Your task to perform on an android device: Do I have any events this weekend? Image 0: 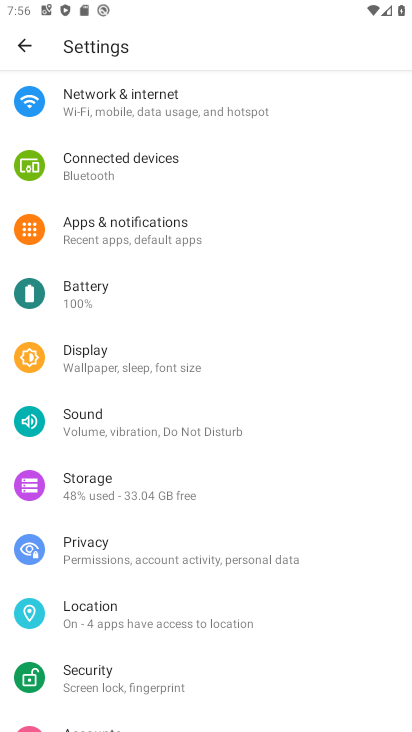
Step 0: press home button
Your task to perform on an android device: Do I have any events this weekend? Image 1: 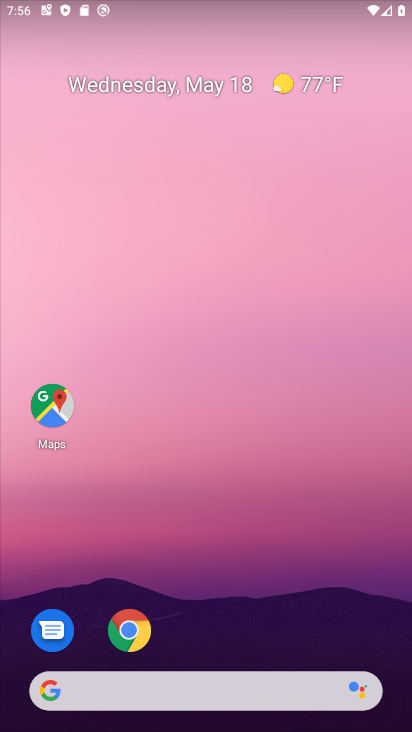
Step 1: drag from (223, 567) to (238, 144)
Your task to perform on an android device: Do I have any events this weekend? Image 2: 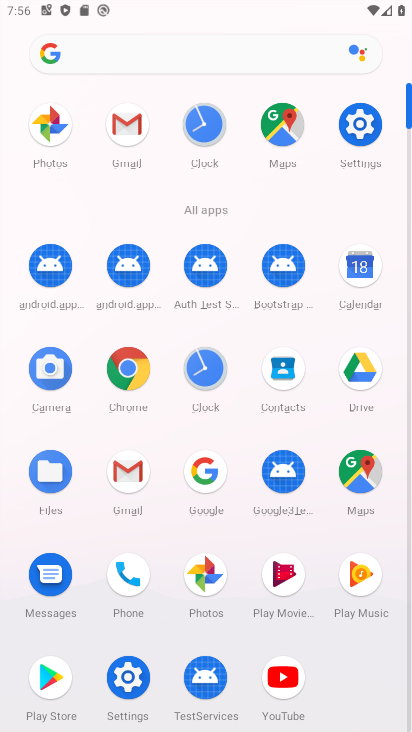
Step 2: click (362, 272)
Your task to perform on an android device: Do I have any events this weekend? Image 3: 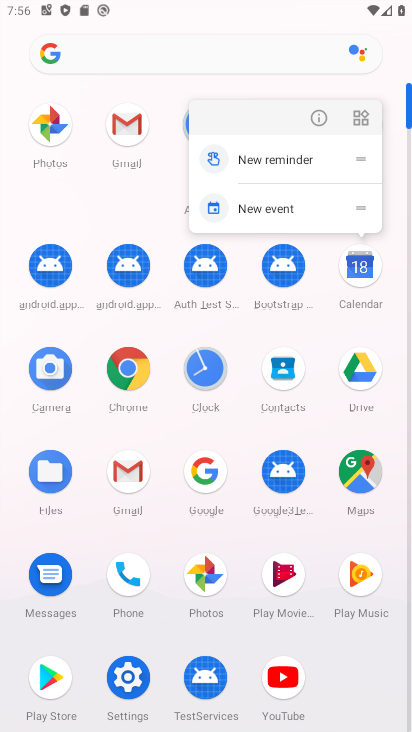
Step 3: click (362, 277)
Your task to perform on an android device: Do I have any events this weekend? Image 4: 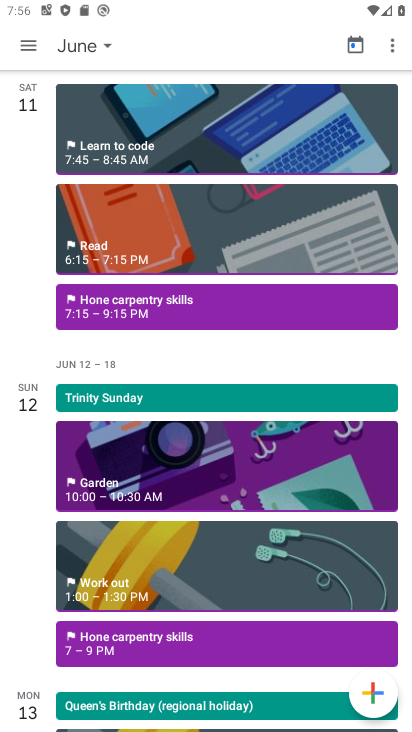
Step 4: click (108, 44)
Your task to perform on an android device: Do I have any events this weekend? Image 5: 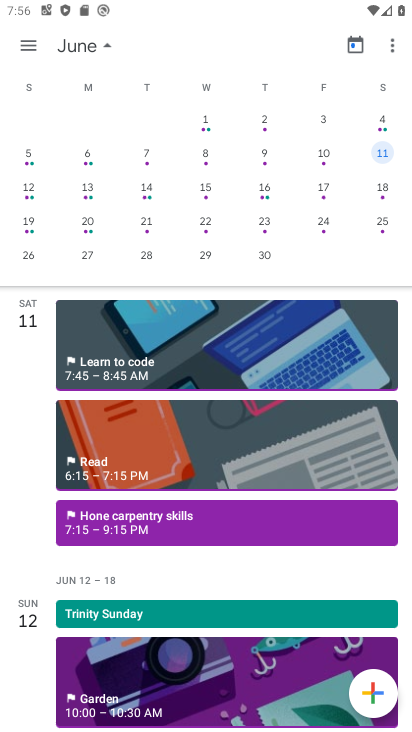
Step 5: drag from (53, 206) to (380, 224)
Your task to perform on an android device: Do I have any events this weekend? Image 6: 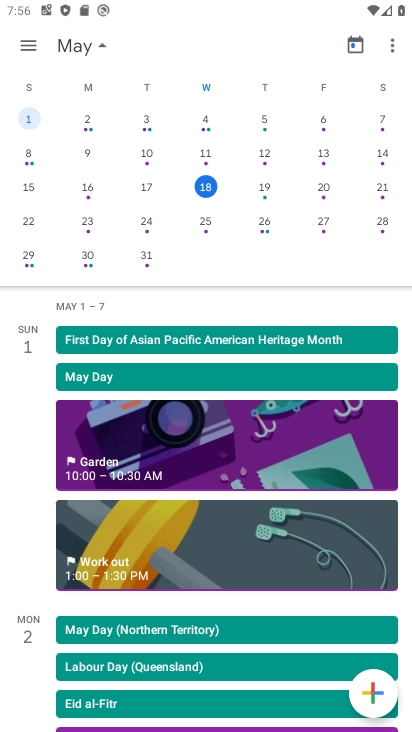
Step 6: click (262, 192)
Your task to perform on an android device: Do I have any events this weekend? Image 7: 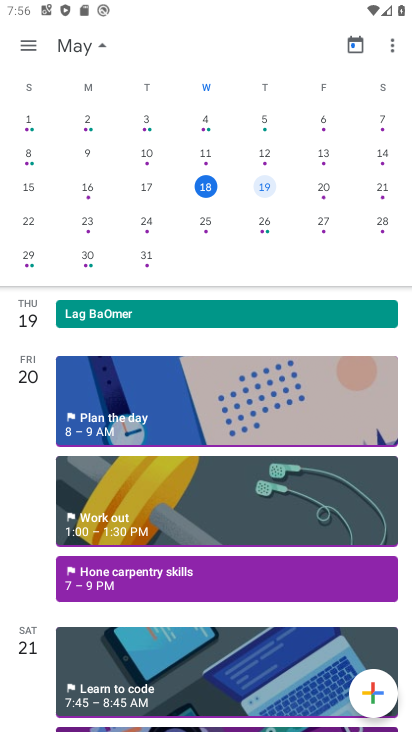
Step 7: click (312, 192)
Your task to perform on an android device: Do I have any events this weekend? Image 8: 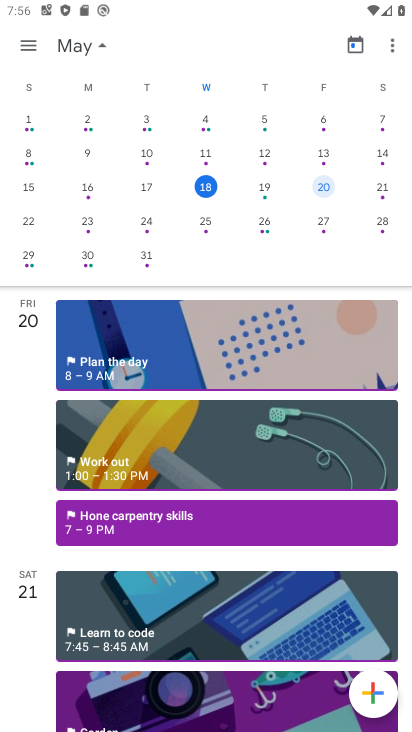
Step 8: click (384, 201)
Your task to perform on an android device: Do I have any events this weekend? Image 9: 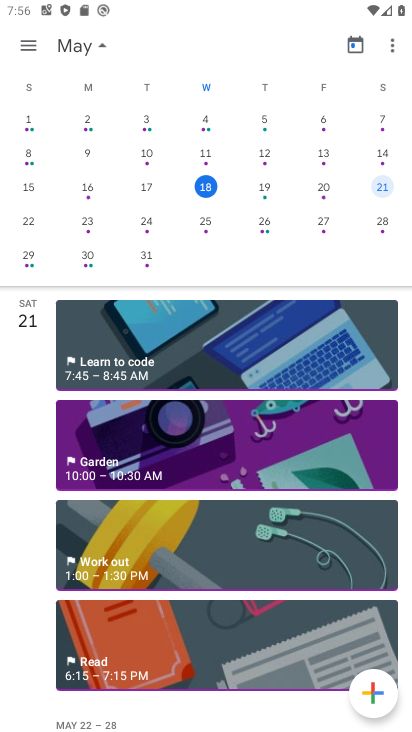
Step 9: task complete